Your task to perform on an android device: open the mobile data screen to see how much data has been used Image 0: 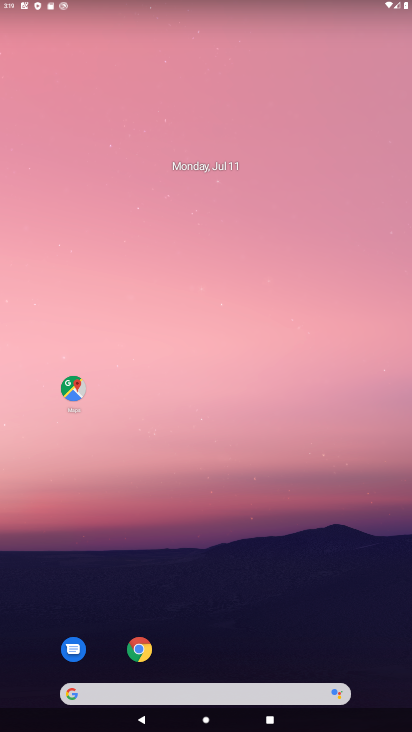
Step 0: drag from (225, 661) to (286, 61)
Your task to perform on an android device: open the mobile data screen to see how much data has been used Image 1: 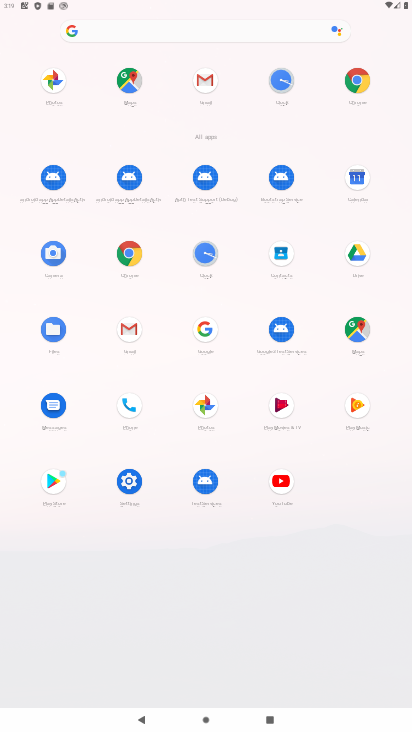
Step 1: click (120, 478)
Your task to perform on an android device: open the mobile data screen to see how much data has been used Image 2: 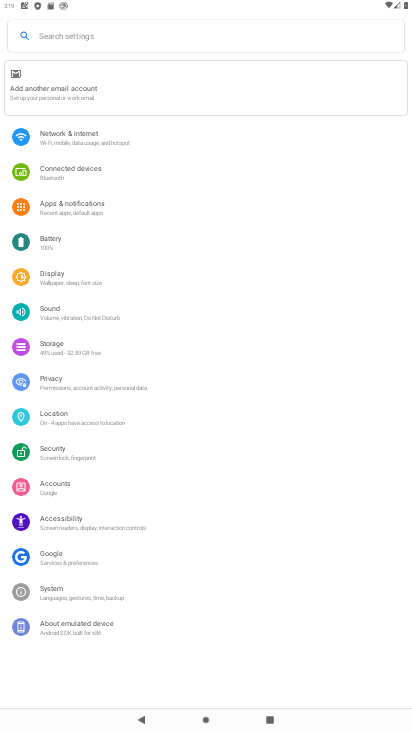
Step 2: click (134, 144)
Your task to perform on an android device: open the mobile data screen to see how much data has been used Image 3: 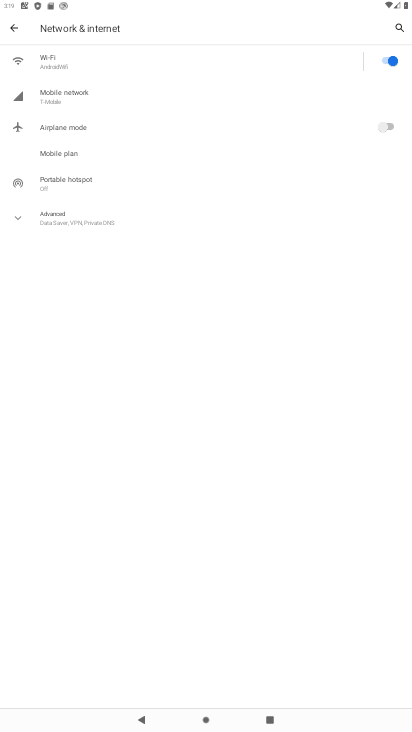
Step 3: click (147, 105)
Your task to perform on an android device: open the mobile data screen to see how much data has been used Image 4: 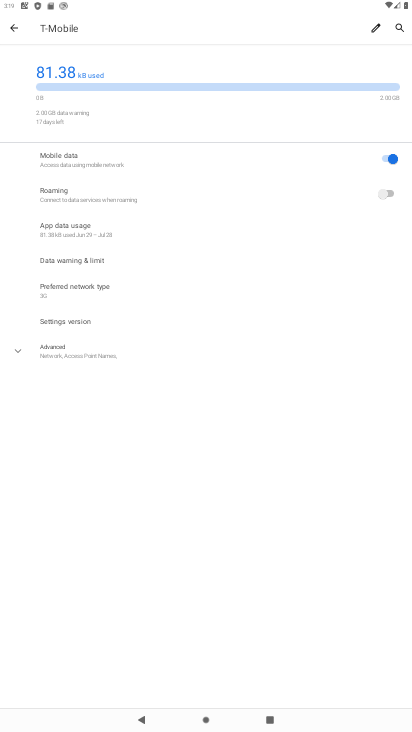
Step 4: task complete